Your task to perform on an android device: Open accessibility settings Image 0: 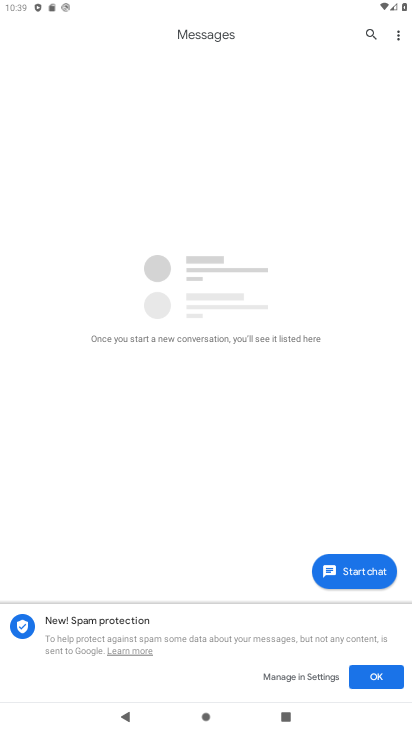
Step 0: press back button
Your task to perform on an android device: Open accessibility settings Image 1: 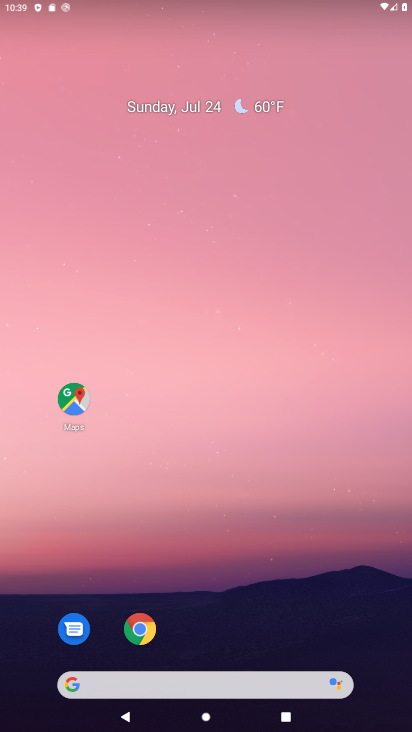
Step 1: drag from (245, 664) to (244, 110)
Your task to perform on an android device: Open accessibility settings Image 2: 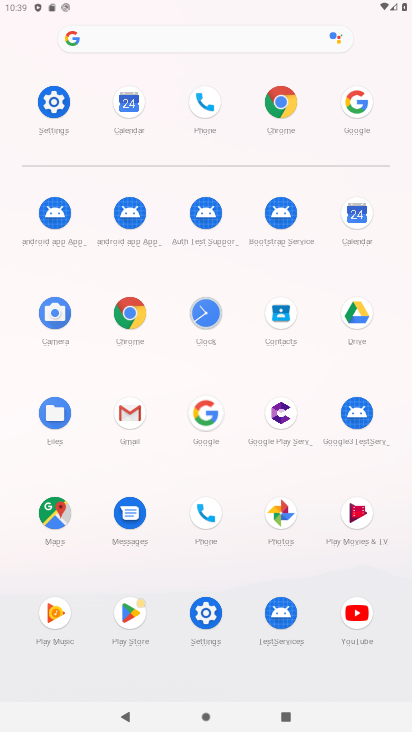
Step 2: click (202, 620)
Your task to perform on an android device: Open accessibility settings Image 3: 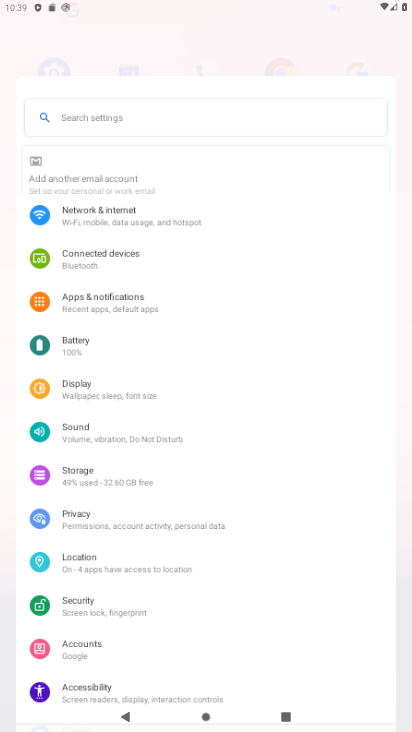
Step 3: click (202, 621)
Your task to perform on an android device: Open accessibility settings Image 4: 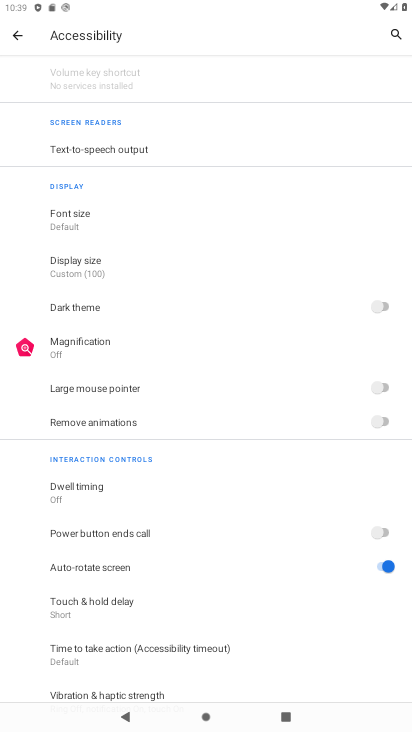
Step 4: task complete